Your task to perform on an android device: read, delete, or share a saved page in the chrome app Image 0: 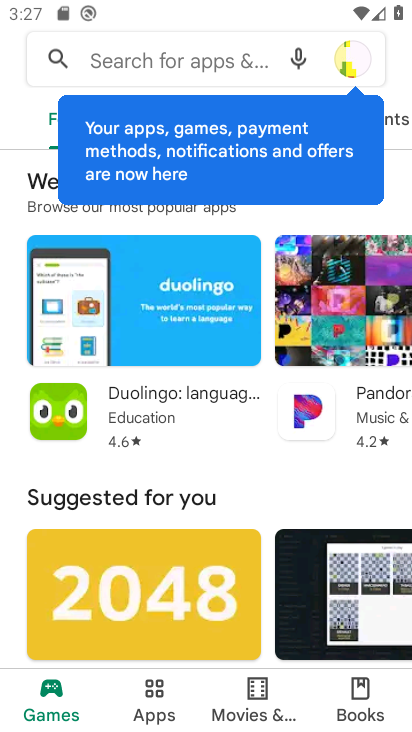
Step 0: press home button
Your task to perform on an android device: read, delete, or share a saved page in the chrome app Image 1: 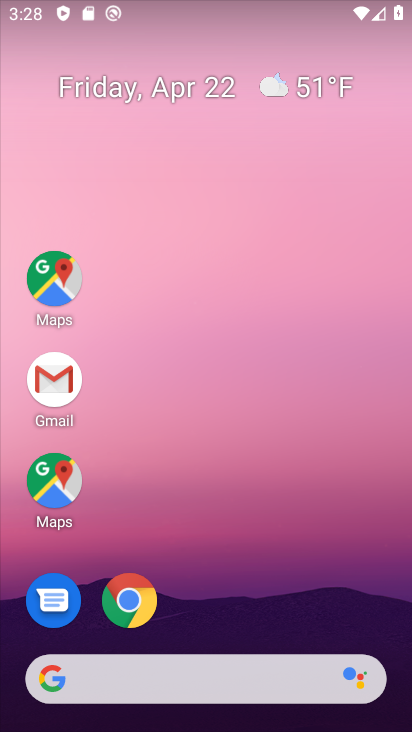
Step 1: drag from (271, 577) to (210, 213)
Your task to perform on an android device: read, delete, or share a saved page in the chrome app Image 2: 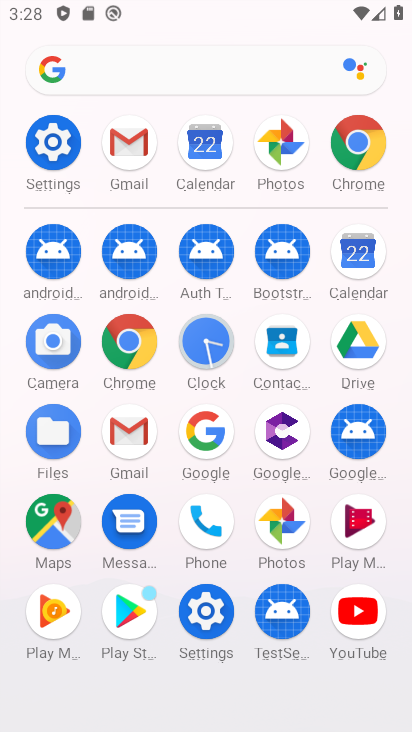
Step 2: click (132, 345)
Your task to perform on an android device: read, delete, or share a saved page in the chrome app Image 3: 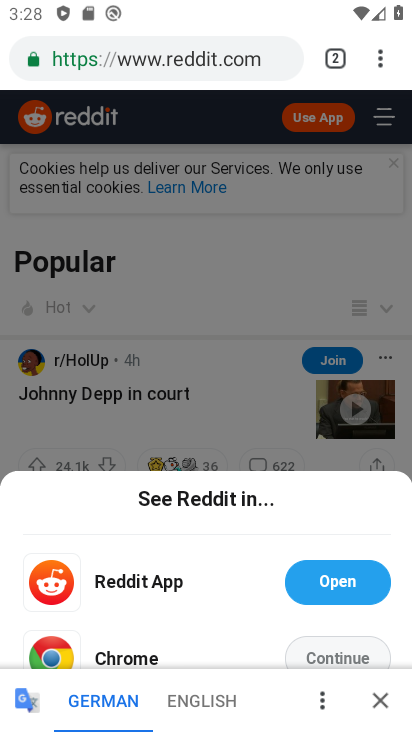
Step 3: press home button
Your task to perform on an android device: read, delete, or share a saved page in the chrome app Image 4: 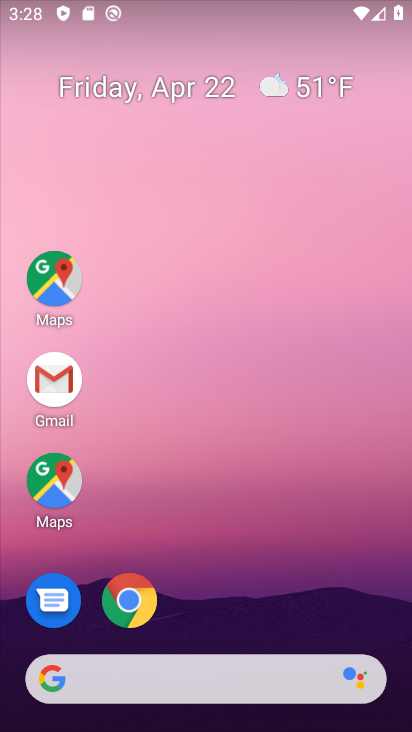
Step 4: drag from (282, 662) to (76, 79)
Your task to perform on an android device: read, delete, or share a saved page in the chrome app Image 5: 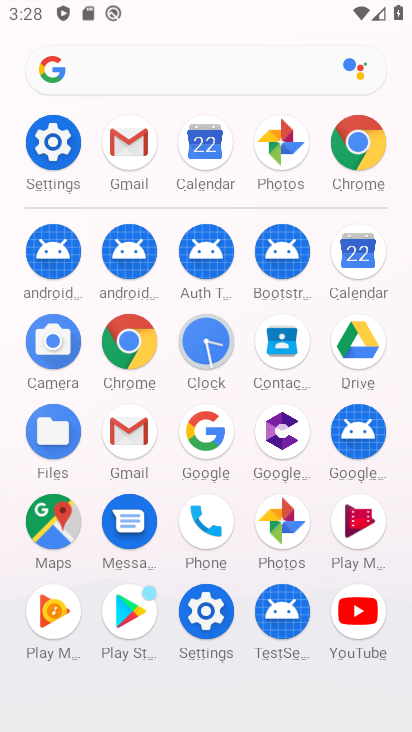
Step 5: click (354, 143)
Your task to perform on an android device: read, delete, or share a saved page in the chrome app Image 6: 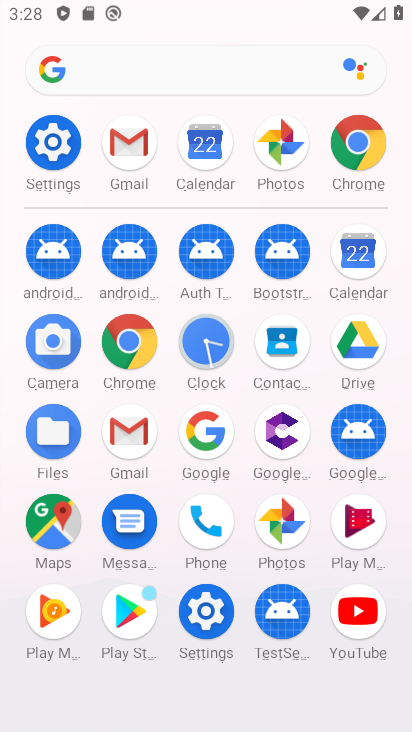
Step 6: click (366, 157)
Your task to perform on an android device: read, delete, or share a saved page in the chrome app Image 7: 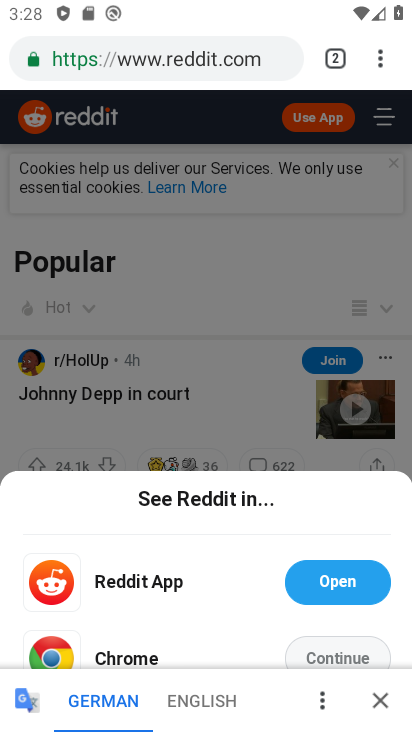
Step 7: drag from (376, 55) to (188, 386)
Your task to perform on an android device: read, delete, or share a saved page in the chrome app Image 8: 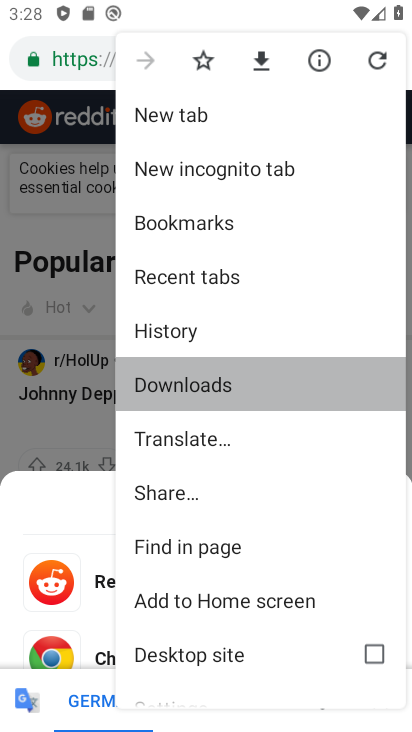
Step 8: click (188, 386)
Your task to perform on an android device: read, delete, or share a saved page in the chrome app Image 9: 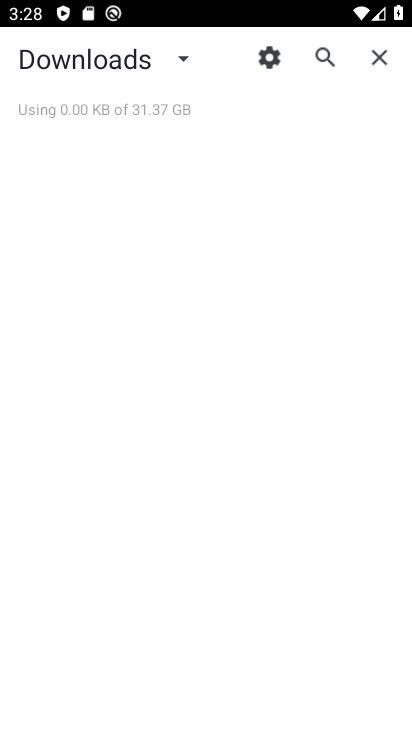
Step 9: click (186, 58)
Your task to perform on an android device: read, delete, or share a saved page in the chrome app Image 10: 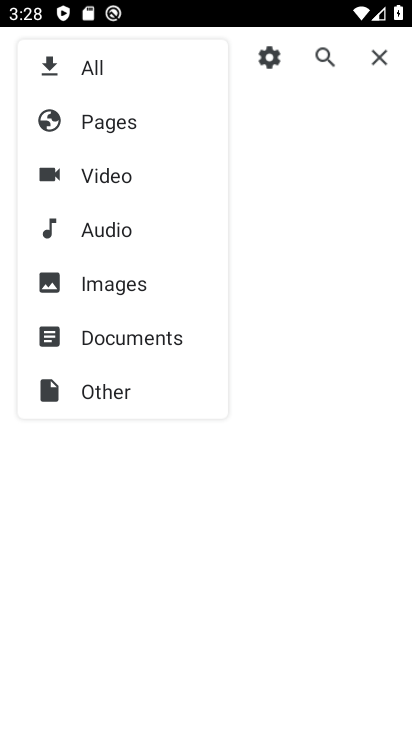
Step 10: click (101, 122)
Your task to perform on an android device: read, delete, or share a saved page in the chrome app Image 11: 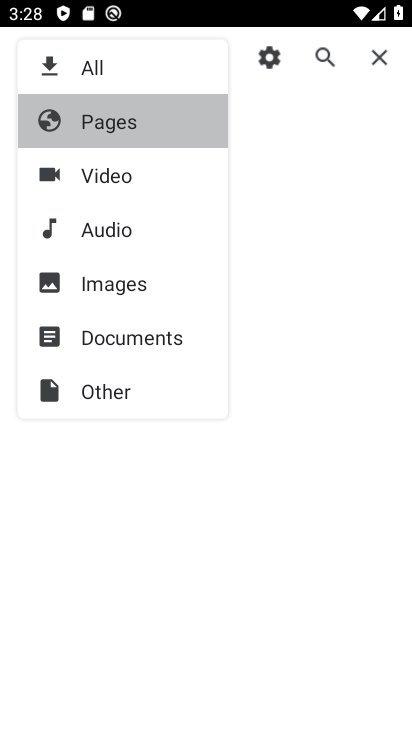
Step 11: click (100, 123)
Your task to perform on an android device: read, delete, or share a saved page in the chrome app Image 12: 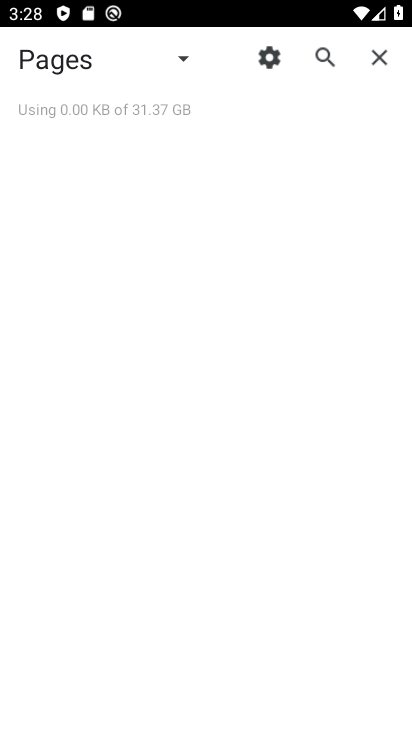
Step 12: task complete